Your task to perform on an android device: Show me recent news Image 0: 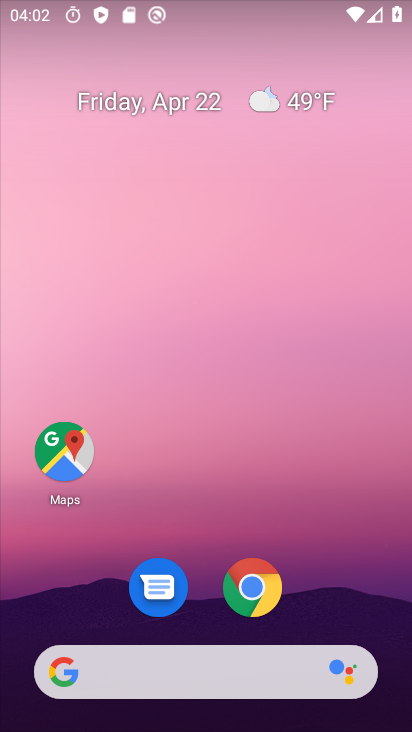
Step 0: drag from (15, 254) to (396, 314)
Your task to perform on an android device: Show me recent news Image 1: 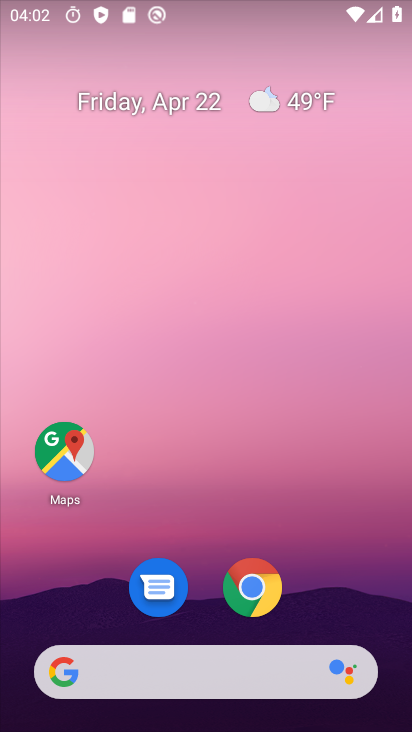
Step 1: task complete